Your task to perform on an android device: Do I have any events this weekend? Image 0: 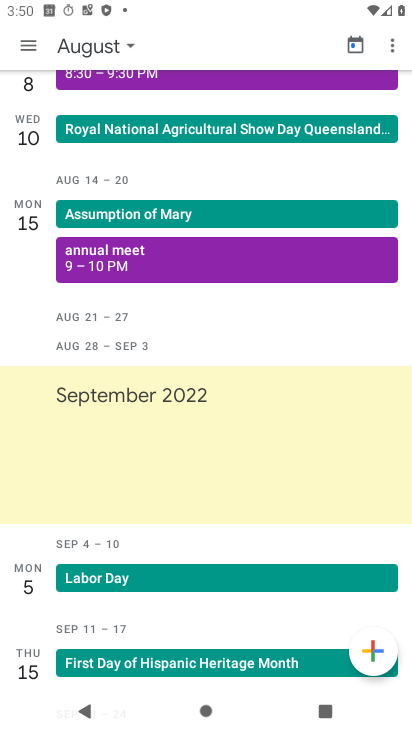
Step 0: press home button
Your task to perform on an android device: Do I have any events this weekend? Image 1: 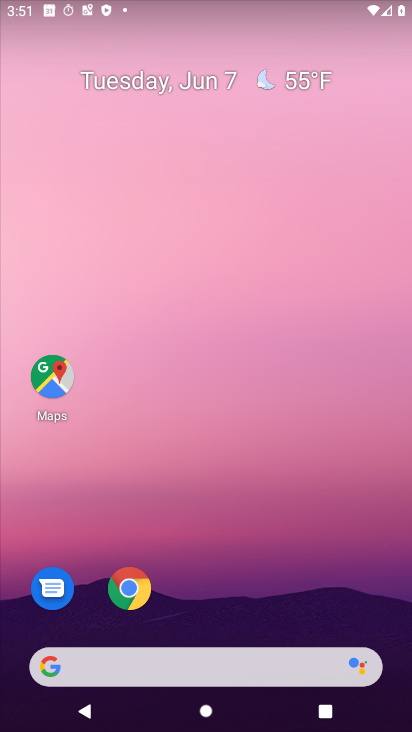
Step 1: press home button
Your task to perform on an android device: Do I have any events this weekend? Image 2: 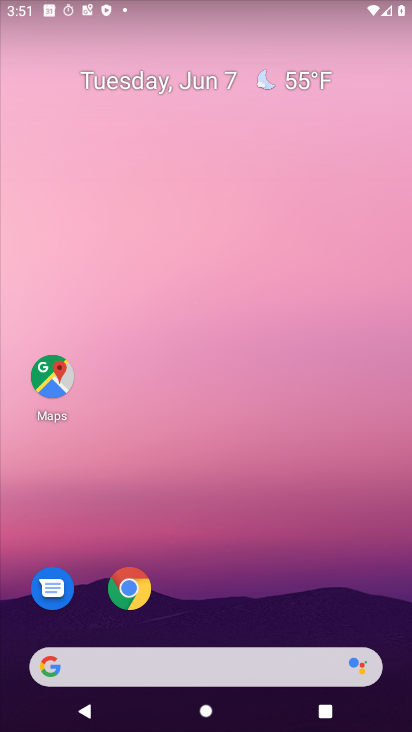
Step 2: drag from (270, 634) to (206, 203)
Your task to perform on an android device: Do I have any events this weekend? Image 3: 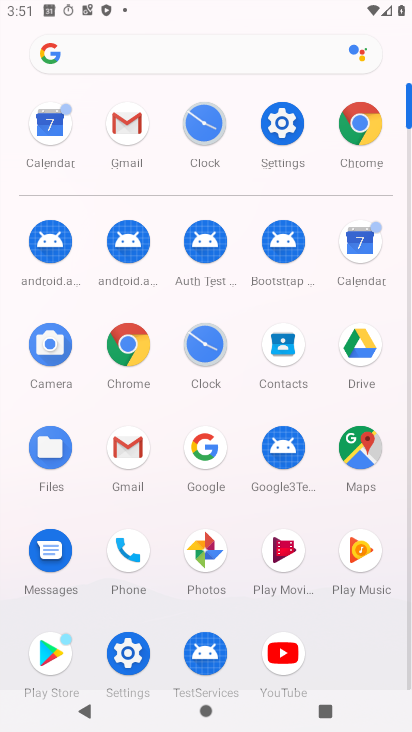
Step 3: click (361, 247)
Your task to perform on an android device: Do I have any events this weekend? Image 4: 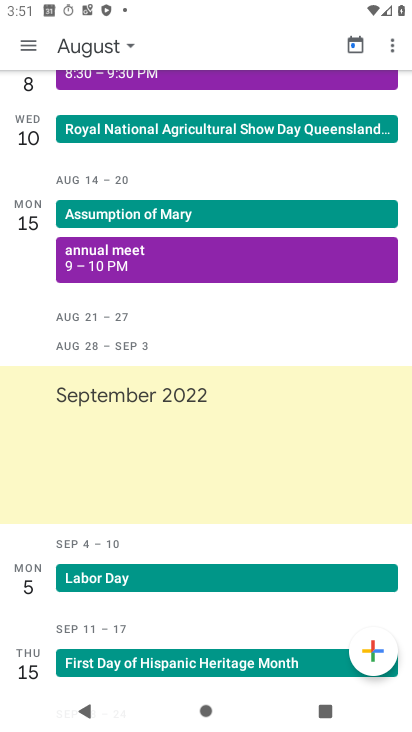
Step 4: task complete